Your task to perform on an android device: Go to calendar. Show me events next week Image 0: 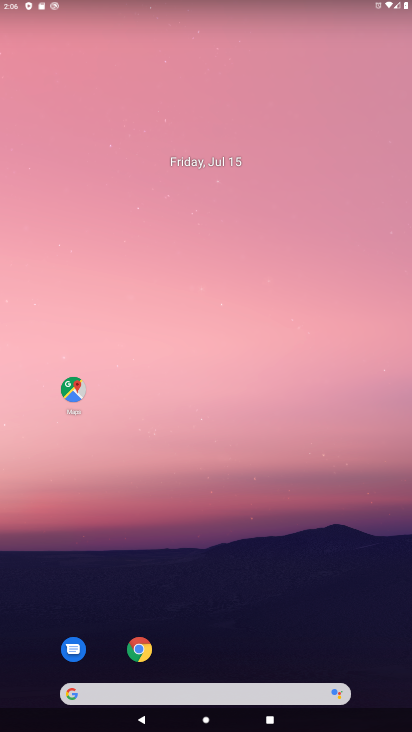
Step 0: drag from (179, 630) to (184, 24)
Your task to perform on an android device: Go to calendar. Show me events next week Image 1: 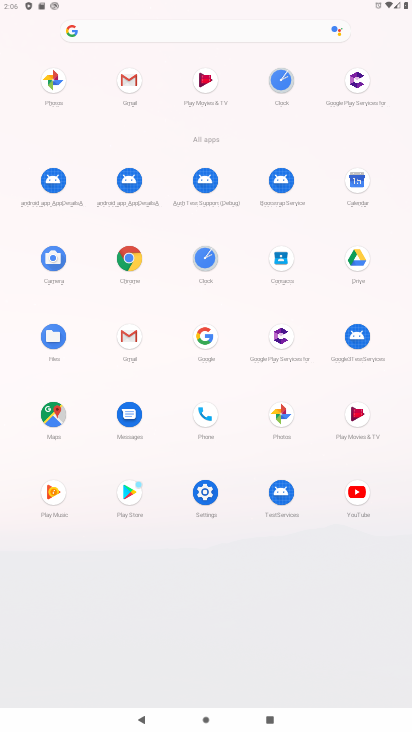
Step 1: click (359, 181)
Your task to perform on an android device: Go to calendar. Show me events next week Image 2: 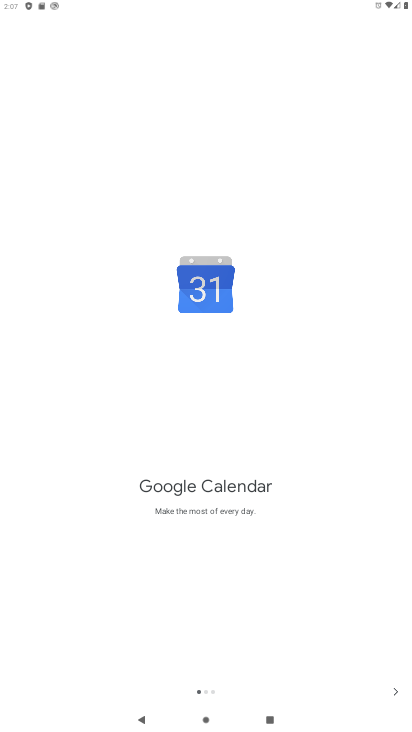
Step 2: click (390, 697)
Your task to perform on an android device: Go to calendar. Show me events next week Image 3: 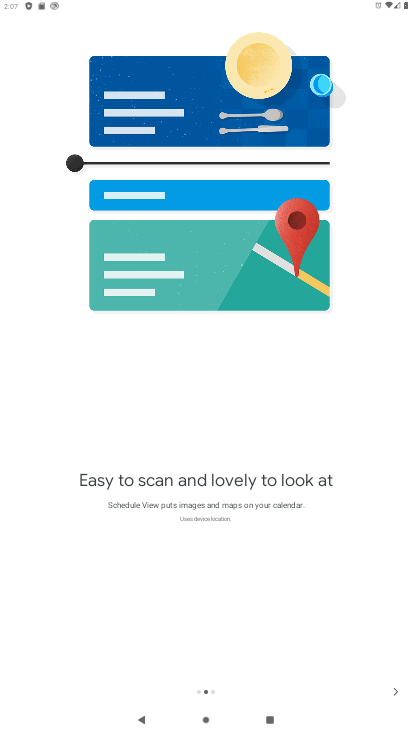
Step 3: click (395, 692)
Your task to perform on an android device: Go to calendar. Show me events next week Image 4: 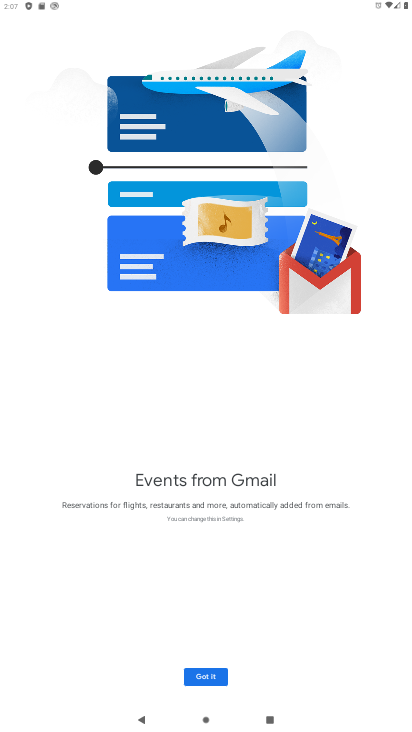
Step 4: click (218, 683)
Your task to perform on an android device: Go to calendar. Show me events next week Image 5: 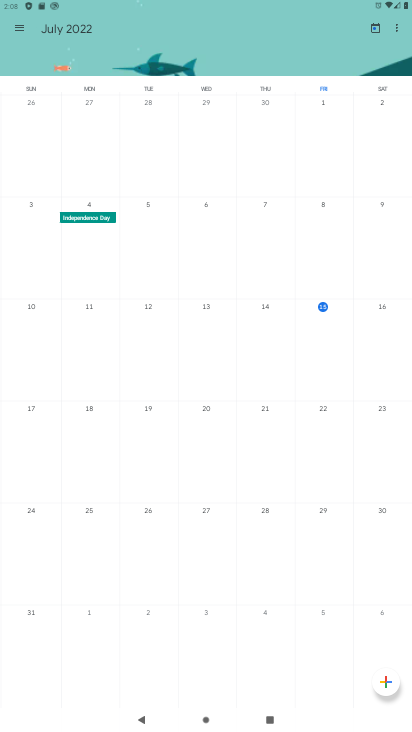
Step 5: click (18, 26)
Your task to perform on an android device: Go to calendar. Show me events next week Image 6: 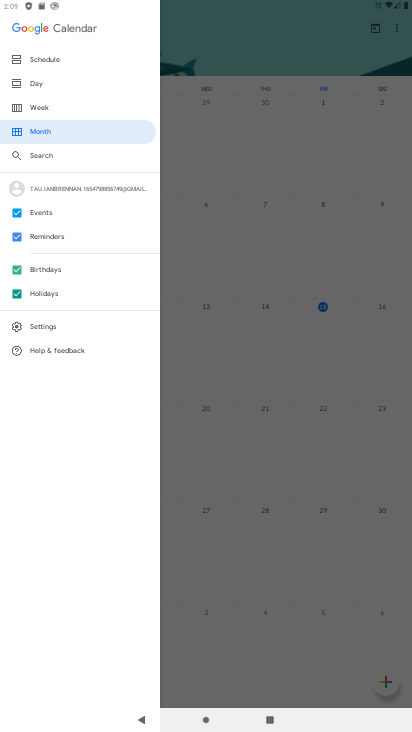
Step 6: click (15, 239)
Your task to perform on an android device: Go to calendar. Show me events next week Image 7: 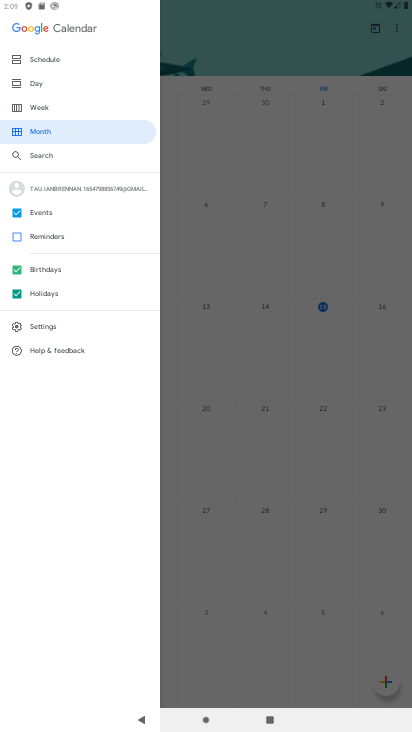
Step 7: click (18, 273)
Your task to perform on an android device: Go to calendar. Show me events next week Image 8: 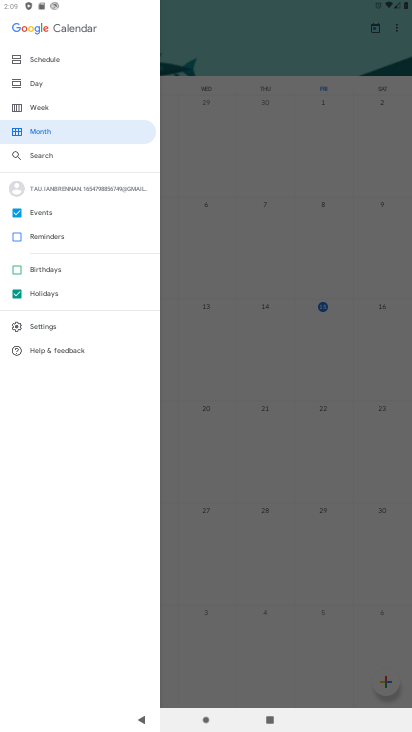
Step 8: click (12, 291)
Your task to perform on an android device: Go to calendar. Show me events next week Image 9: 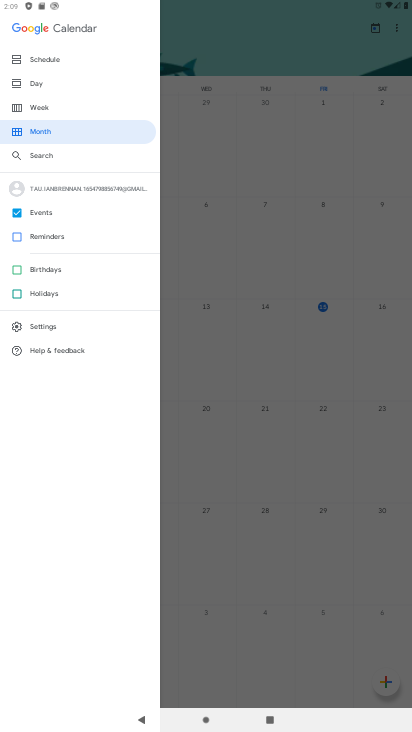
Step 9: click (51, 111)
Your task to perform on an android device: Go to calendar. Show me events next week Image 10: 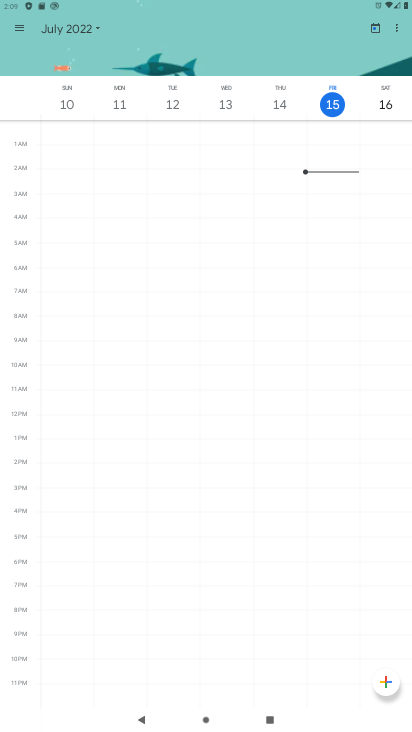
Step 10: click (90, 21)
Your task to perform on an android device: Go to calendar. Show me events next week Image 11: 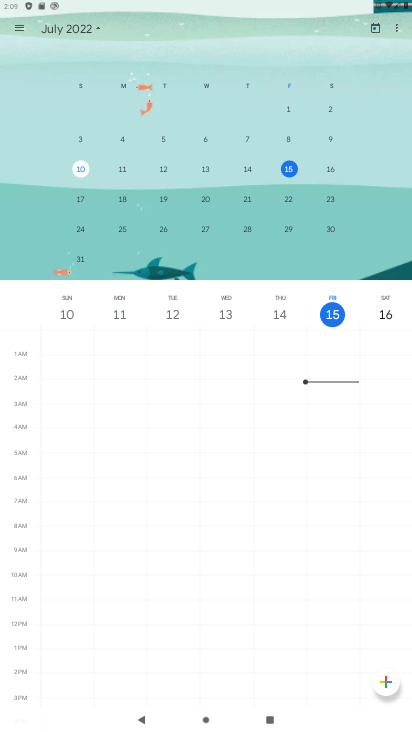
Step 11: click (291, 205)
Your task to perform on an android device: Go to calendar. Show me events next week Image 12: 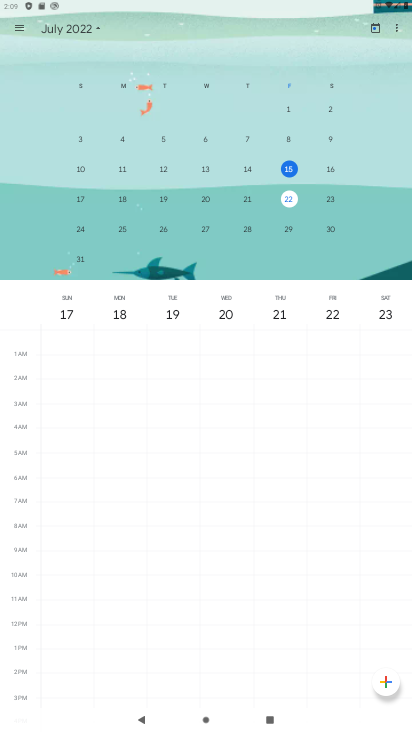
Step 12: task complete